Your task to perform on an android device: turn pop-ups on in chrome Image 0: 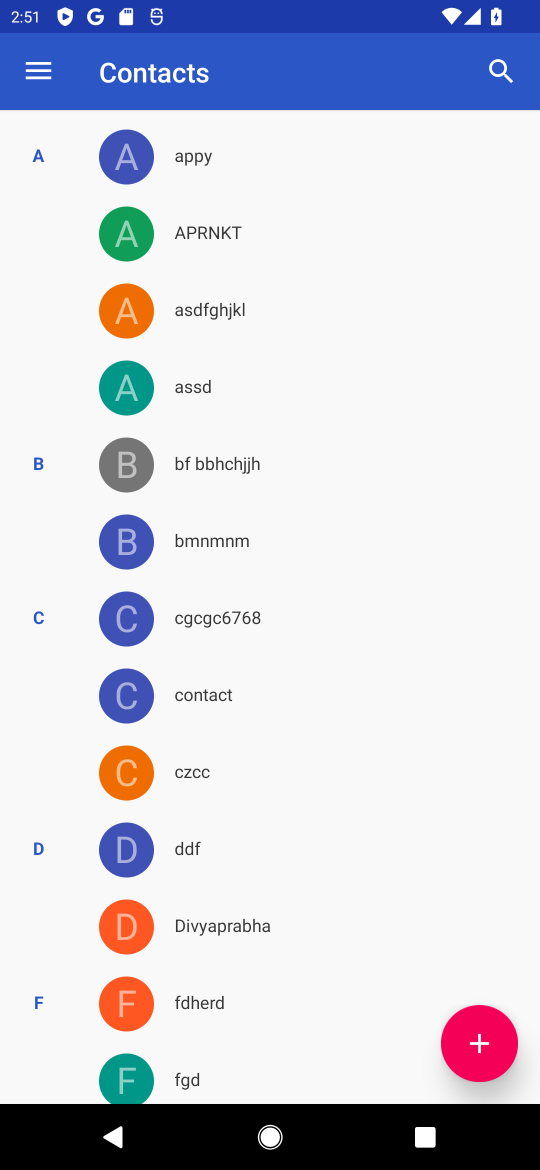
Step 0: press home button
Your task to perform on an android device: turn pop-ups on in chrome Image 1: 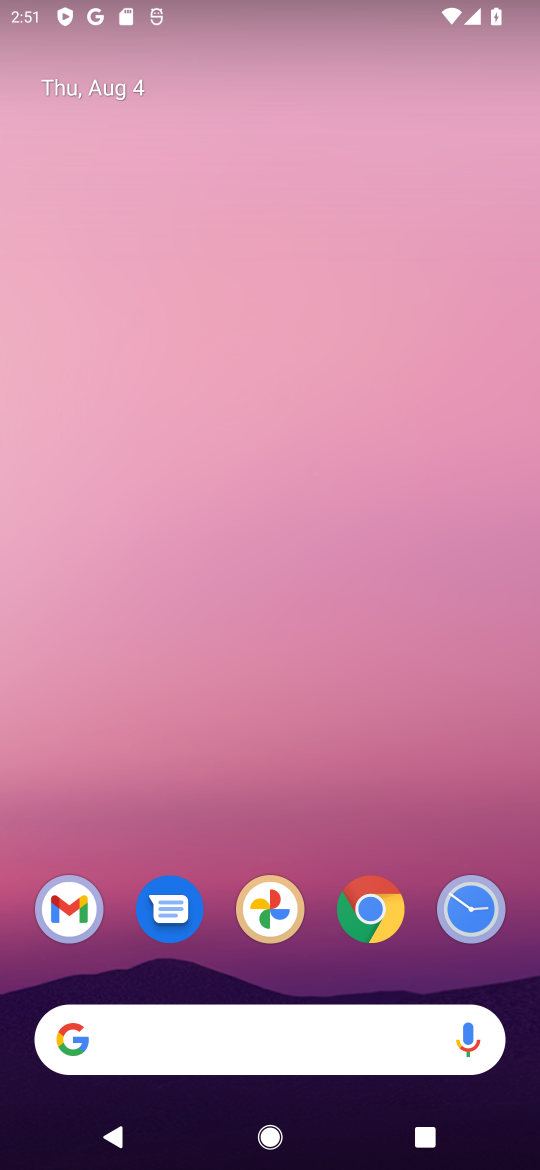
Step 1: click (368, 916)
Your task to perform on an android device: turn pop-ups on in chrome Image 2: 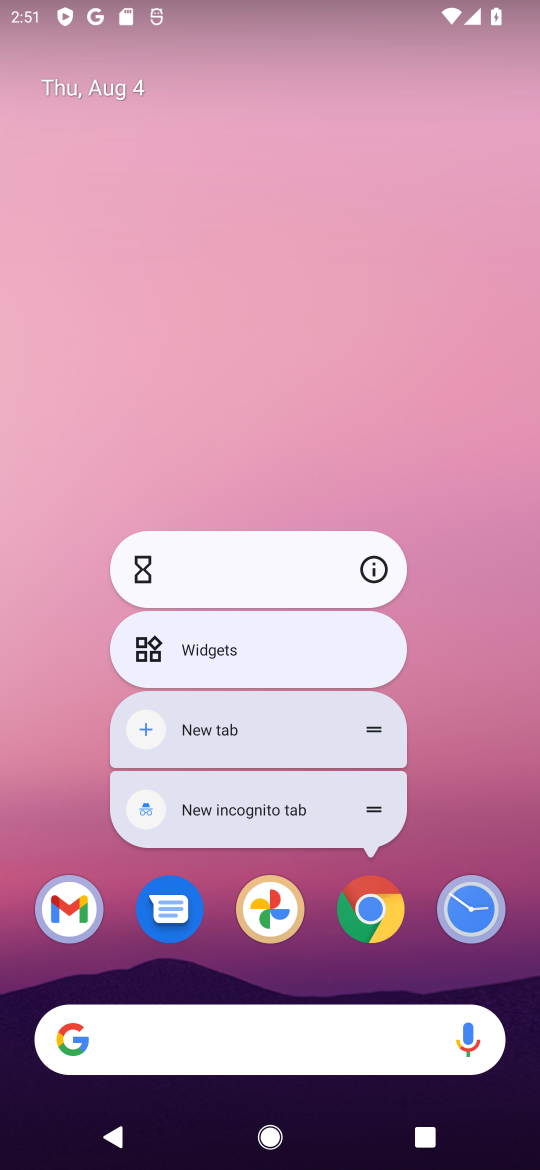
Step 2: click (370, 900)
Your task to perform on an android device: turn pop-ups on in chrome Image 3: 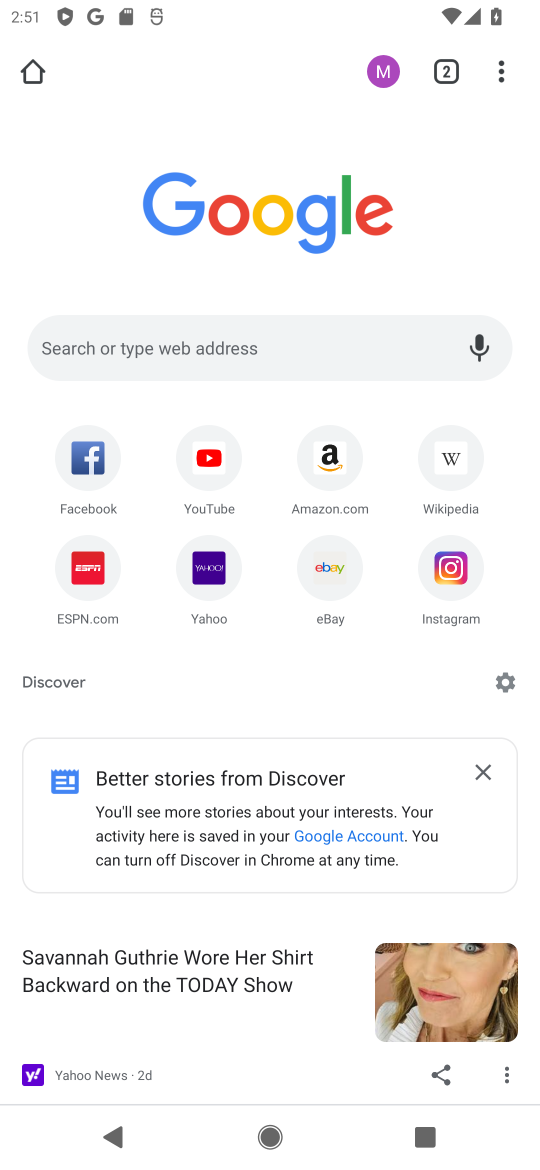
Step 3: drag from (501, 70) to (375, 721)
Your task to perform on an android device: turn pop-ups on in chrome Image 4: 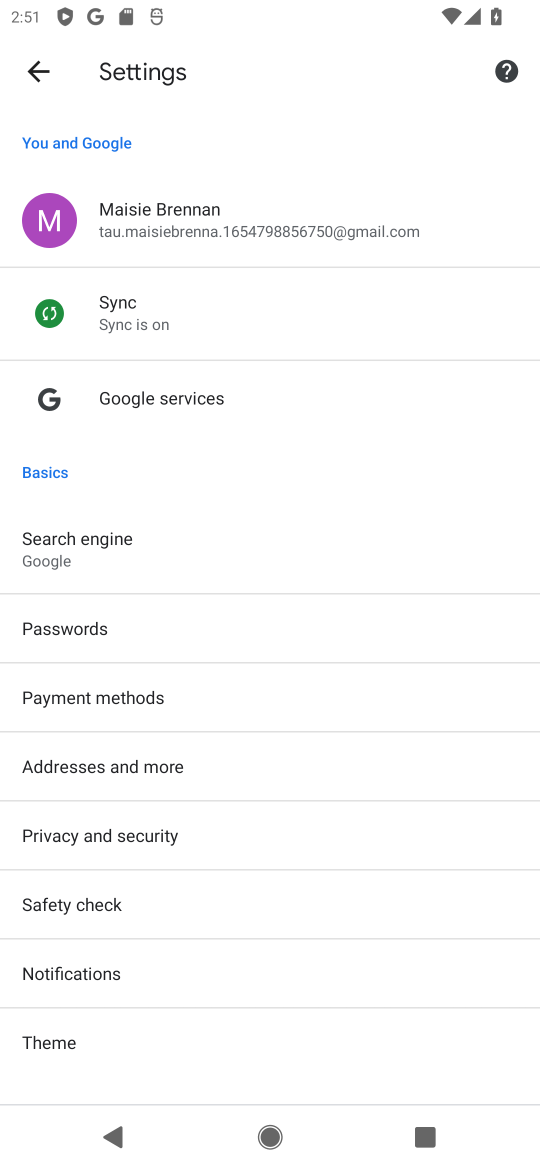
Step 4: drag from (210, 965) to (380, 208)
Your task to perform on an android device: turn pop-ups on in chrome Image 5: 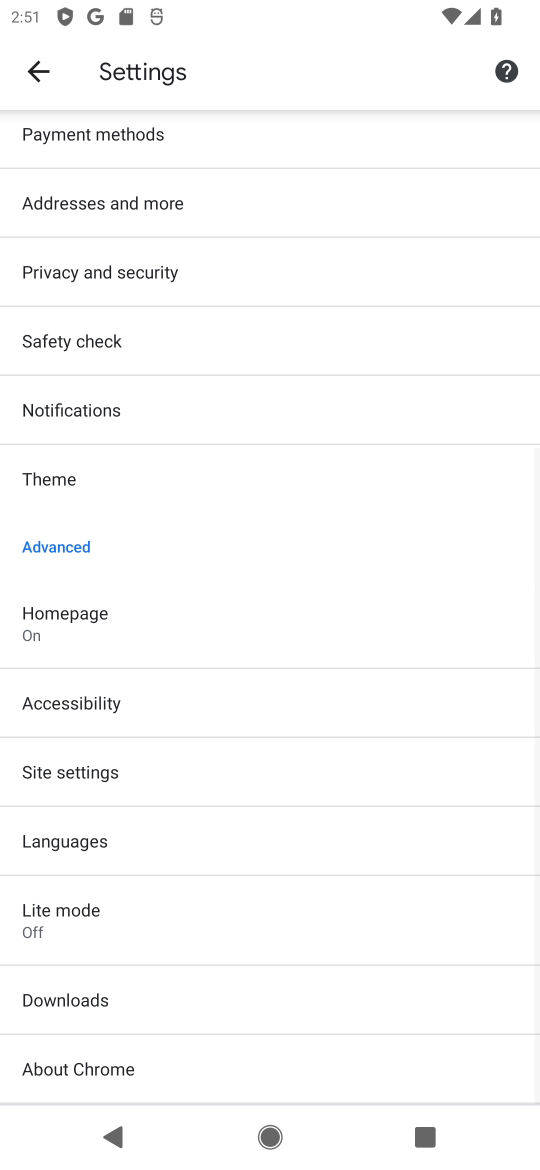
Step 5: click (139, 774)
Your task to perform on an android device: turn pop-ups on in chrome Image 6: 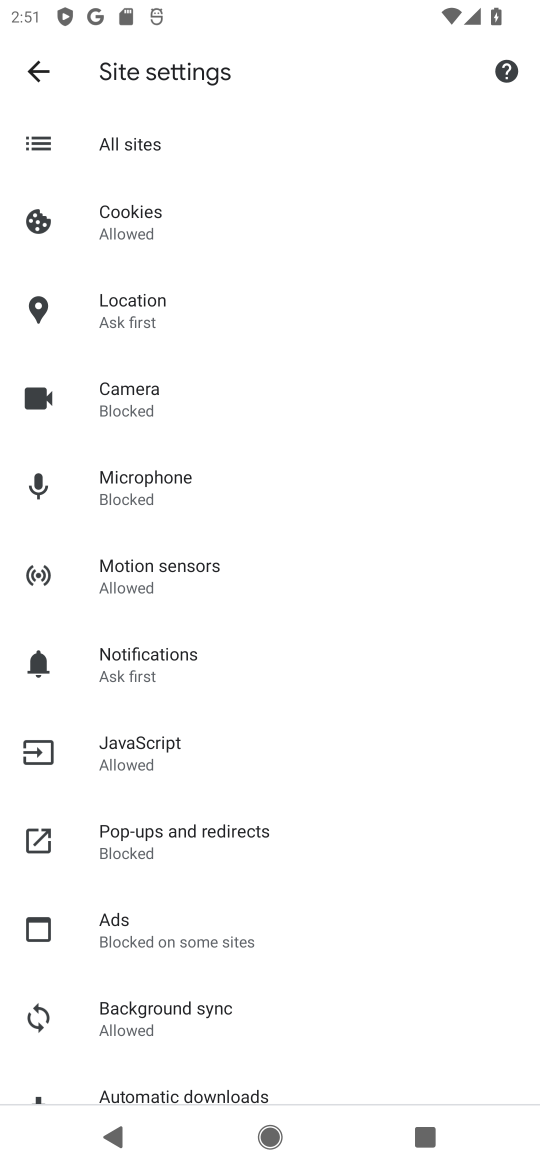
Step 6: click (165, 832)
Your task to perform on an android device: turn pop-ups on in chrome Image 7: 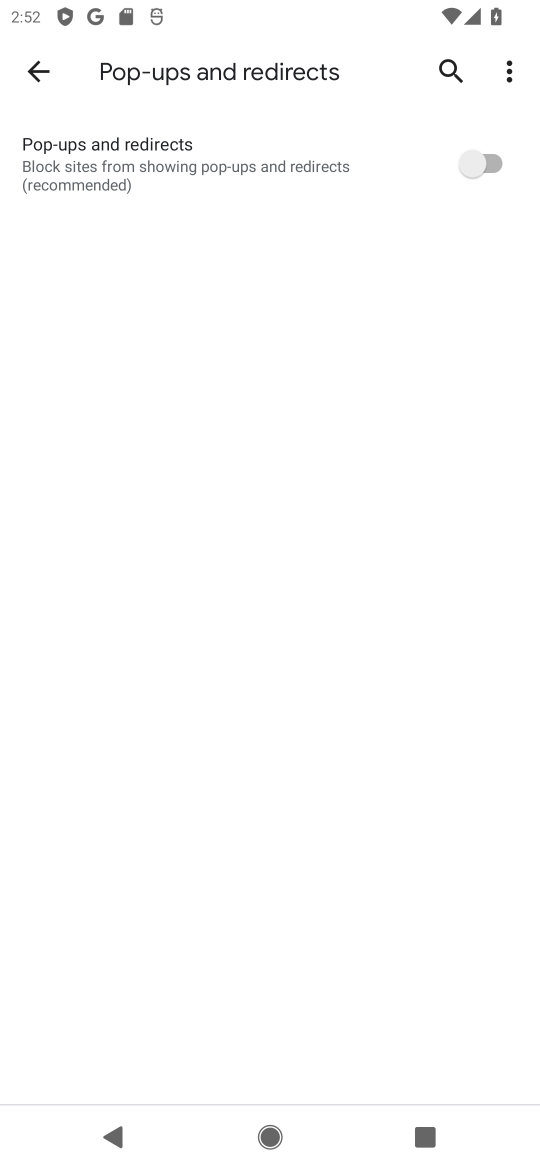
Step 7: click (495, 164)
Your task to perform on an android device: turn pop-ups on in chrome Image 8: 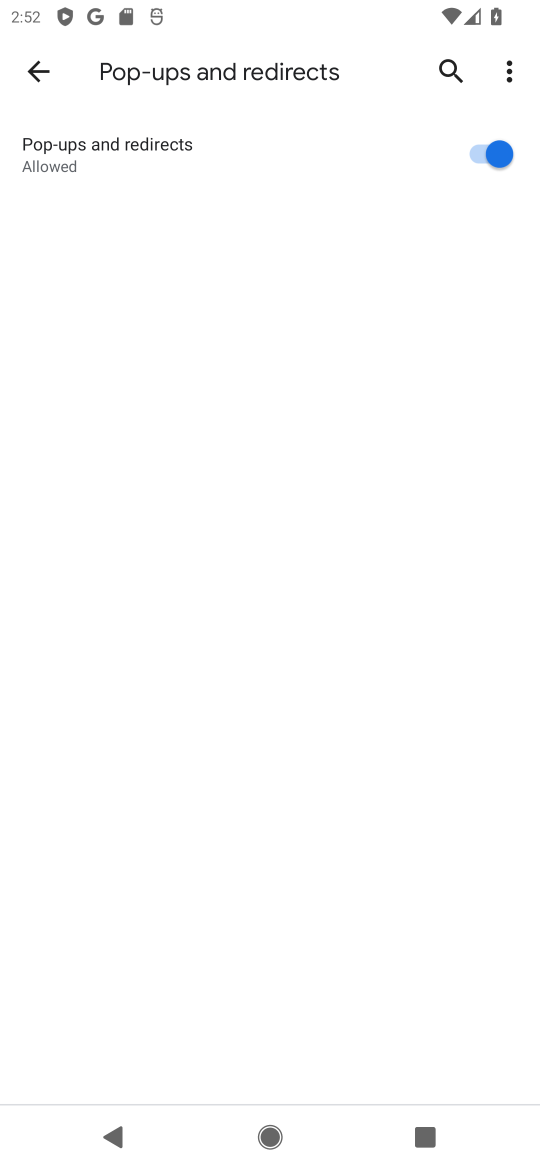
Step 8: task complete